Your task to perform on an android device: turn on the 12-hour format for clock Image 0: 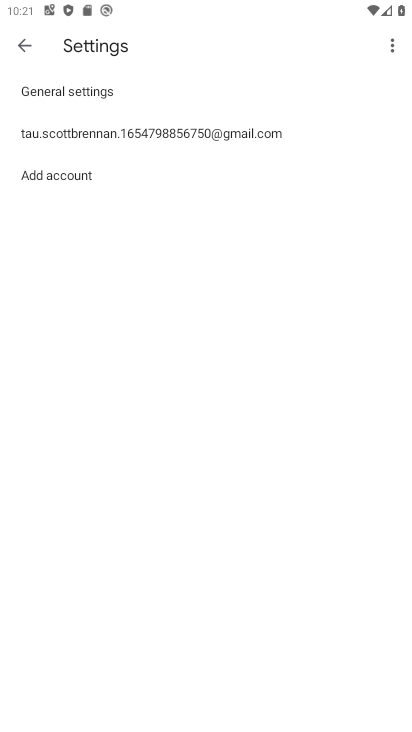
Step 0: press home button
Your task to perform on an android device: turn on the 12-hour format for clock Image 1: 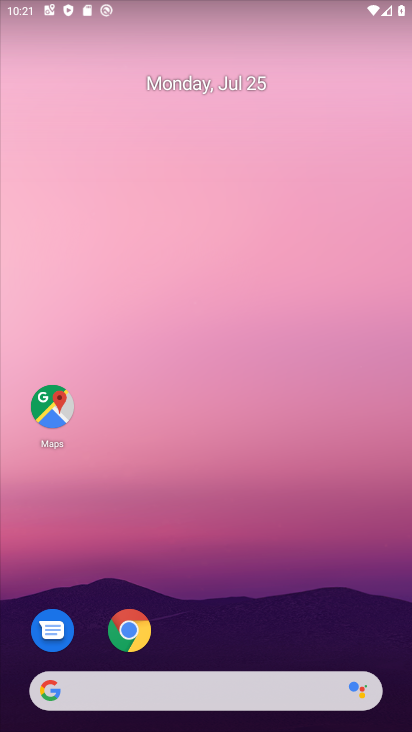
Step 1: drag from (363, 616) to (385, 218)
Your task to perform on an android device: turn on the 12-hour format for clock Image 2: 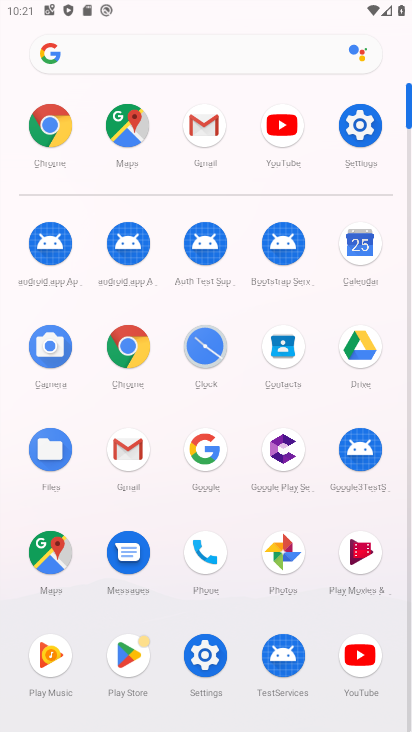
Step 2: click (215, 346)
Your task to perform on an android device: turn on the 12-hour format for clock Image 3: 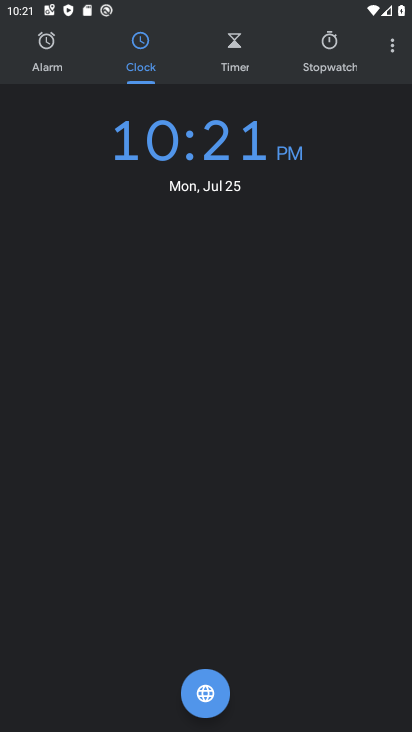
Step 3: click (391, 53)
Your task to perform on an android device: turn on the 12-hour format for clock Image 4: 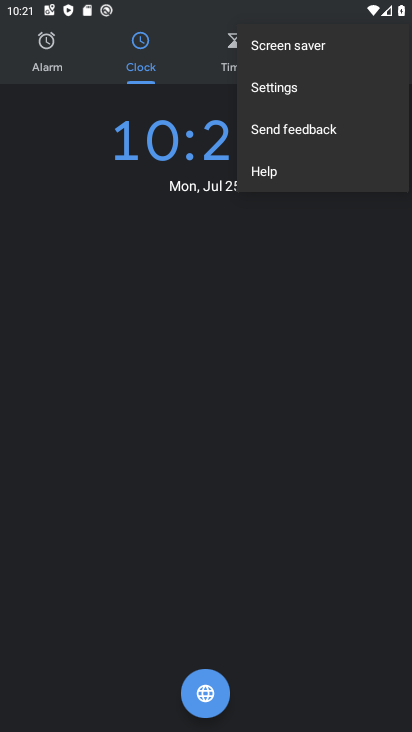
Step 4: click (312, 98)
Your task to perform on an android device: turn on the 12-hour format for clock Image 5: 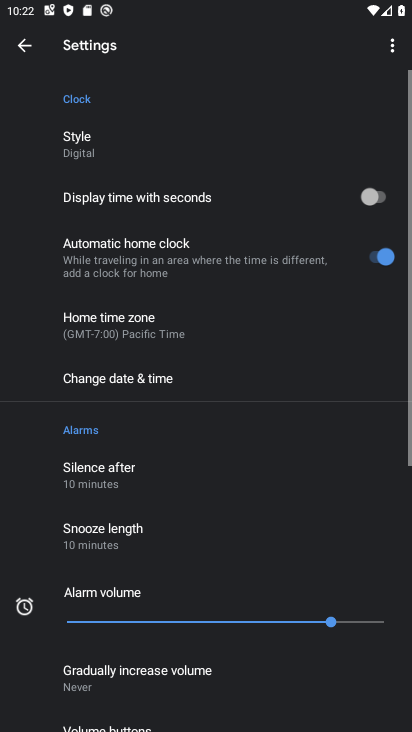
Step 5: drag from (307, 382) to (315, 335)
Your task to perform on an android device: turn on the 12-hour format for clock Image 6: 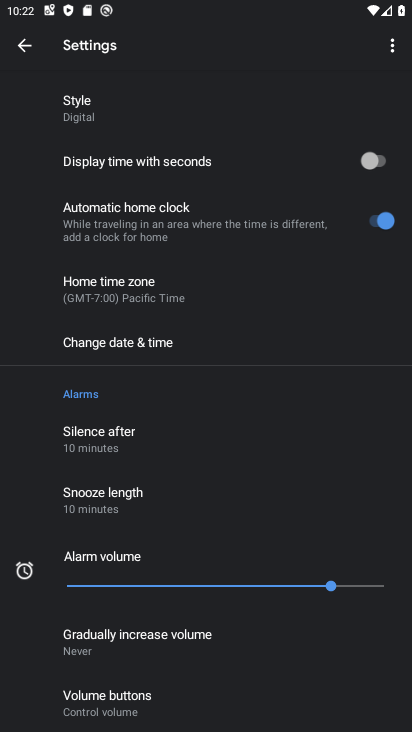
Step 6: drag from (323, 408) to (329, 319)
Your task to perform on an android device: turn on the 12-hour format for clock Image 7: 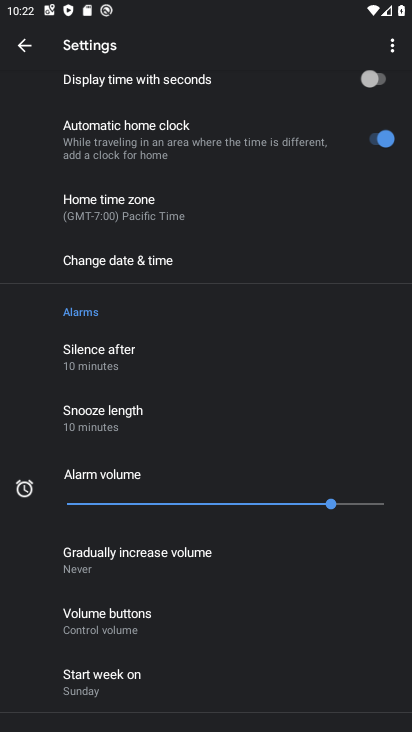
Step 7: drag from (323, 425) to (321, 331)
Your task to perform on an android device: turn on the 12-hour format for clock Image 8: 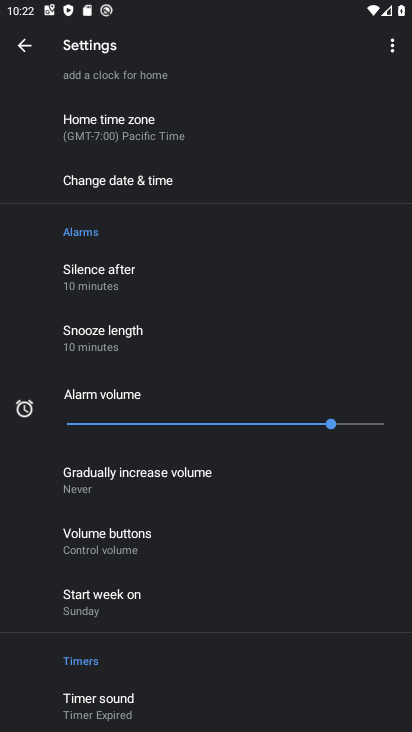
Step 8: drag from (319, 448) to (319, 351)
Your task to perform on an android device: turn on the 12-hour format for clock Image 9: 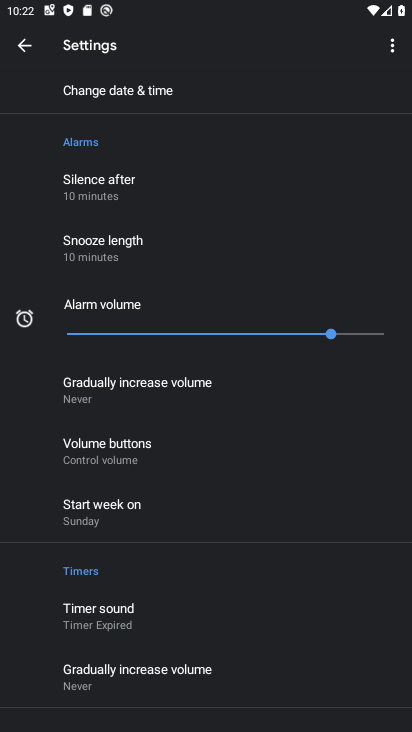
Step 9: drag from (314, 466) to (317, 369)
Your task to perform on an android device: turn on the 12-hour format for clock Image 10: 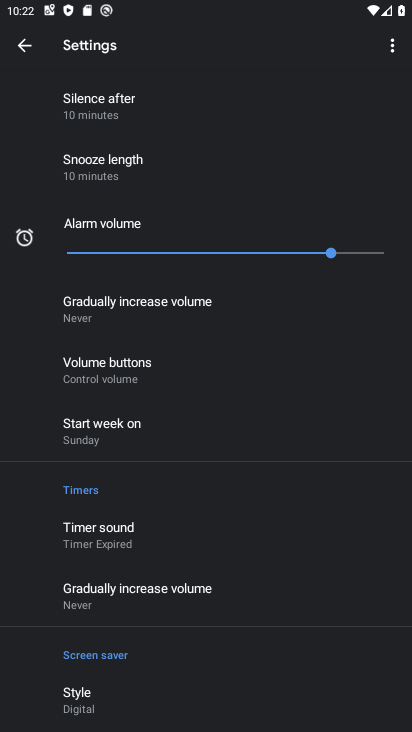
Step 10: drag from (299, 305) to (297, 399)
Your task to perform on an android device: turn on the 12-hour format for clock Image 11: 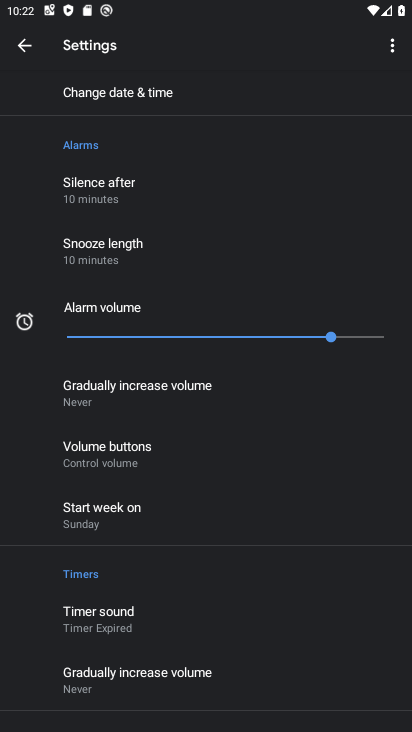
Step 11: drag from (290, 250) to (281, 378)
Your task to perform on an android device: turn on the 12-hour format for clock Image 12: 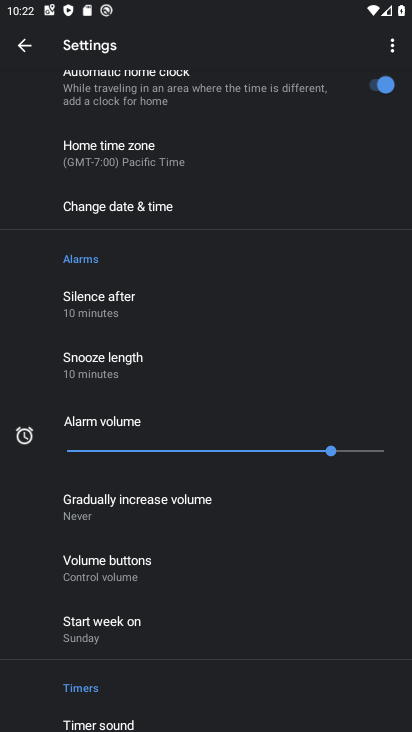
Step 12: click (261, 215)
Your task to perform on an android device: turn on the 12-hour format for clock Image 13: 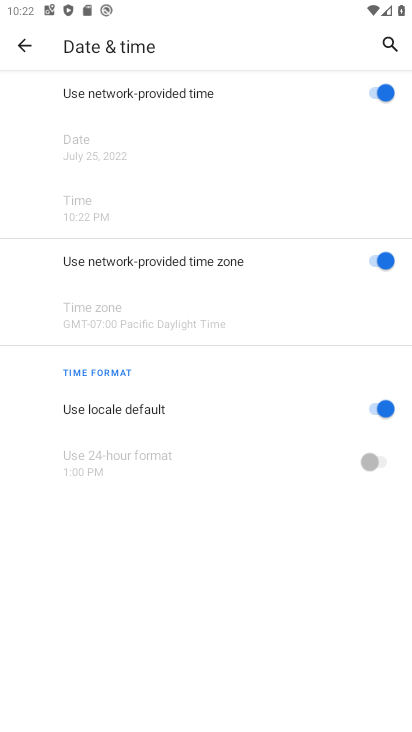
Step 13: task complete